Your task to perform on an android device: Open Reddit.com Image 0: 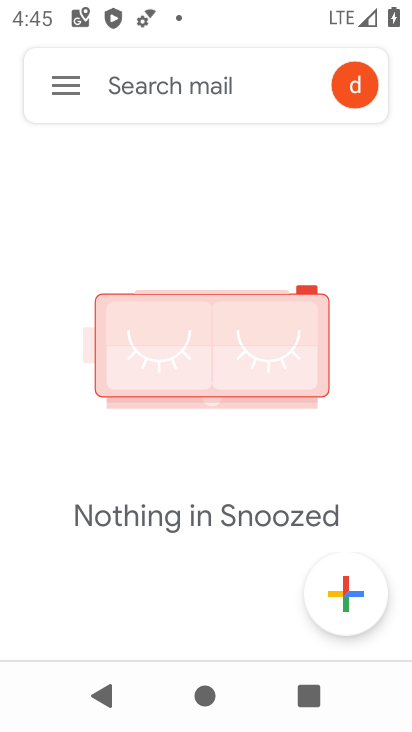
Step 0: press home button
Your task to perform on an android device: Open Reddit.com Image 1: 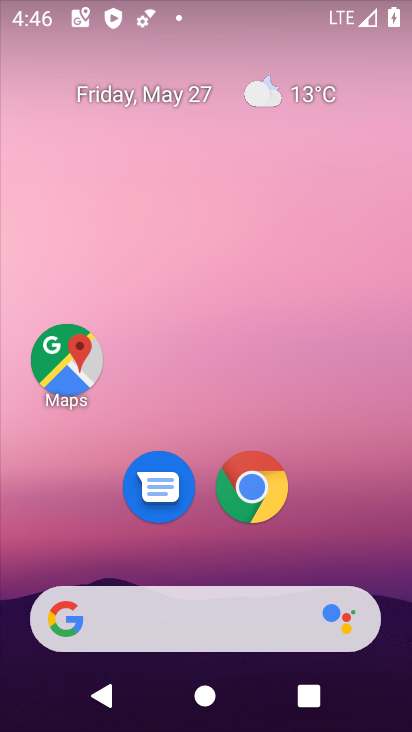
Step 1: click (263, 488)
Your task to perform on an android device: Open Reddit.com Image 2: 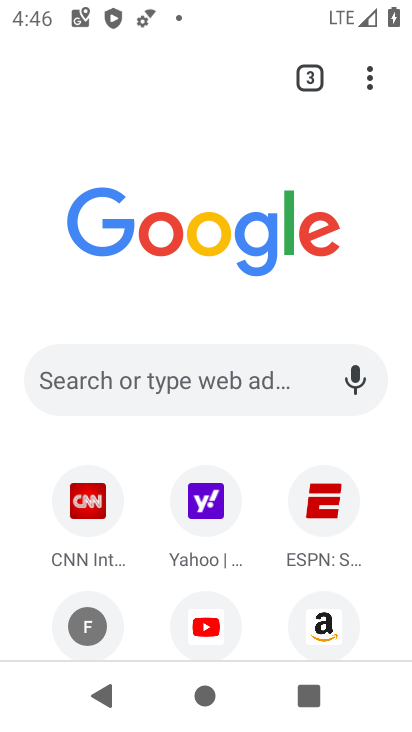
Step 2: click (278, 387)
Your task to perform on an android device: Open Reddit.com Image 3: 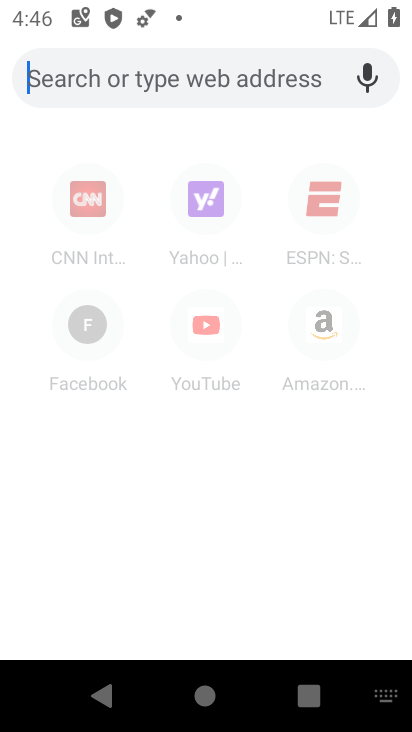
Step 3: type "reddit.com"
Your task to perform on an android device: Open Reddit.com Image 4: 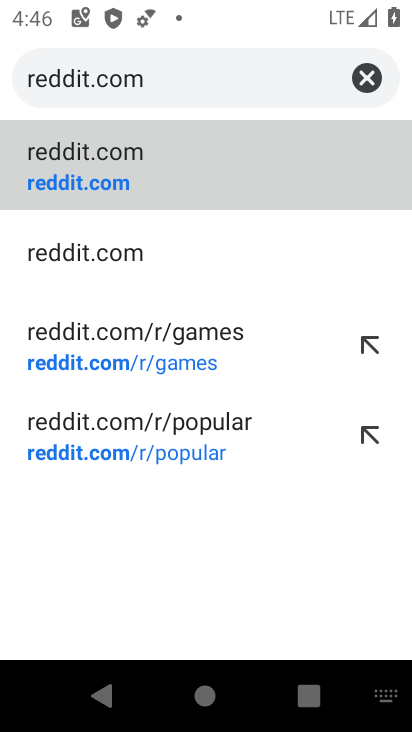
Step 4: click (95, 177)
Your task to perform on an android device: Open Reddit.com Image 5: 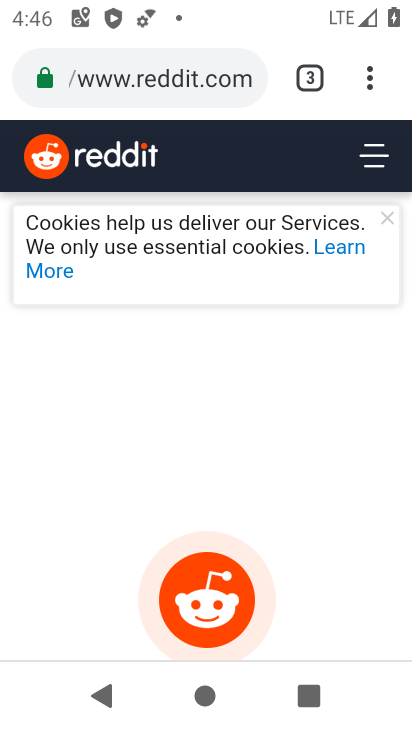
Step 5: task complete